Your task to perform on an android device: Turn on the flashlight Image 0: 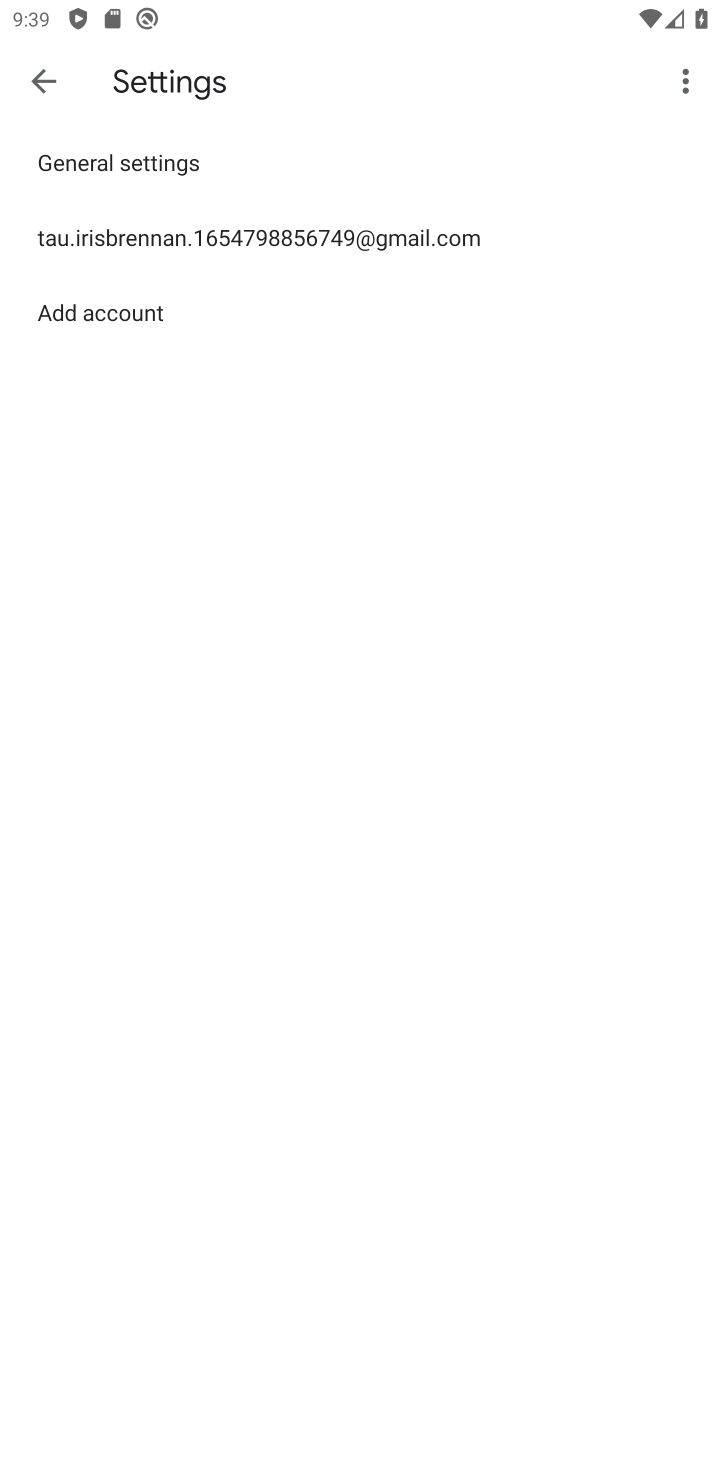
Step 0: press home button
Your task to perform on an android device: Turn on the flashlight Image 1: 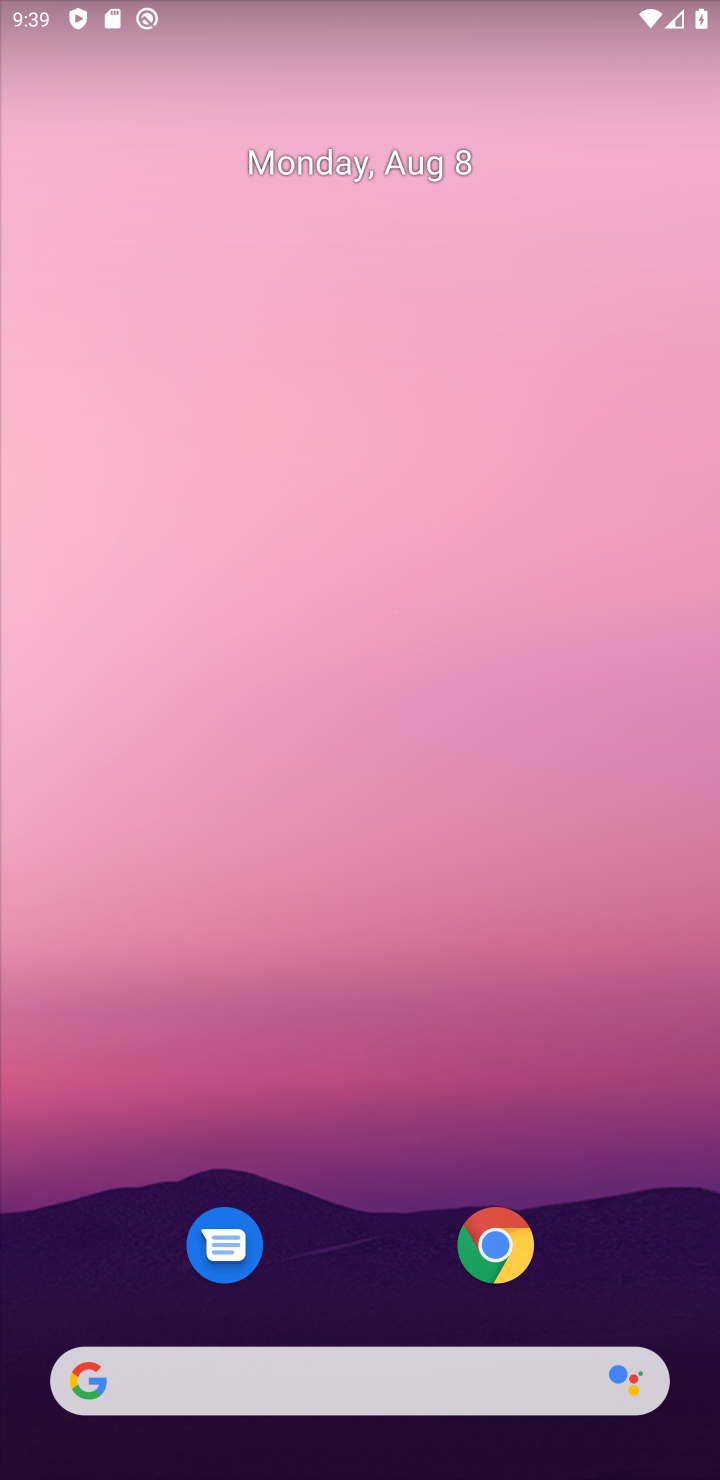
Step 1: drag from (363, 1153) to (363, 448)
Your task to perform on an android device: Turn on the flashlight Image 2: 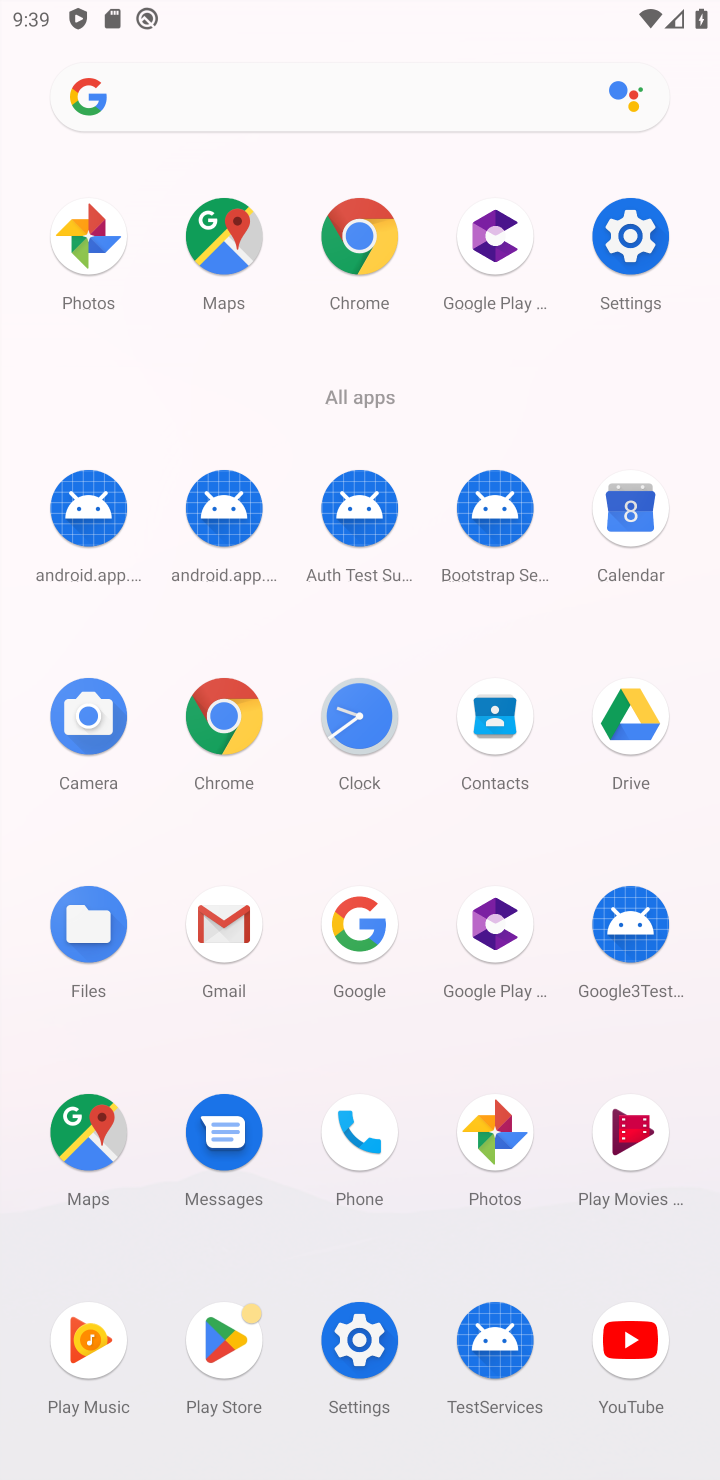
Step 2: click (634, 239)
Your task to perform on an android device: Turn on the flashlight Image 3: 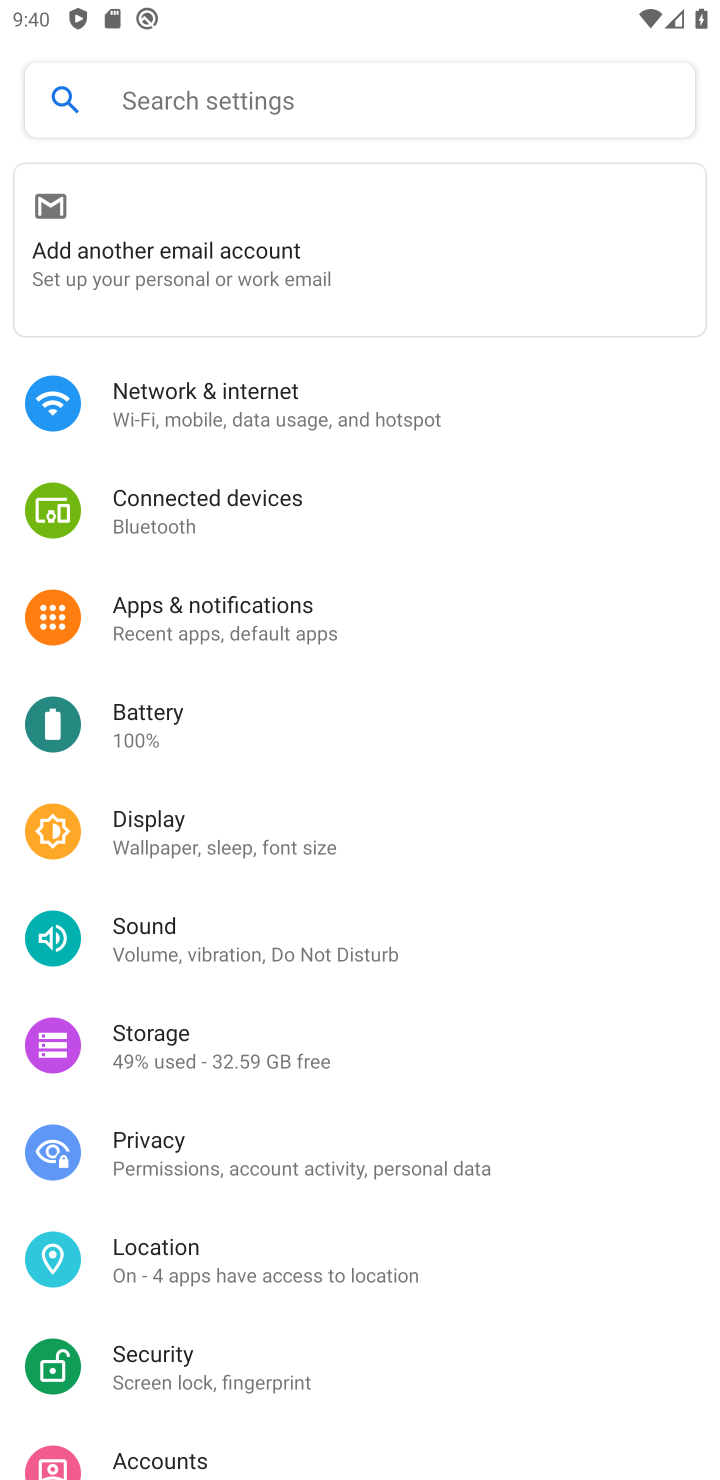
Step 3: click (143, 829)
Your task to perform on an android device: Turn on the flashlight Image 4: 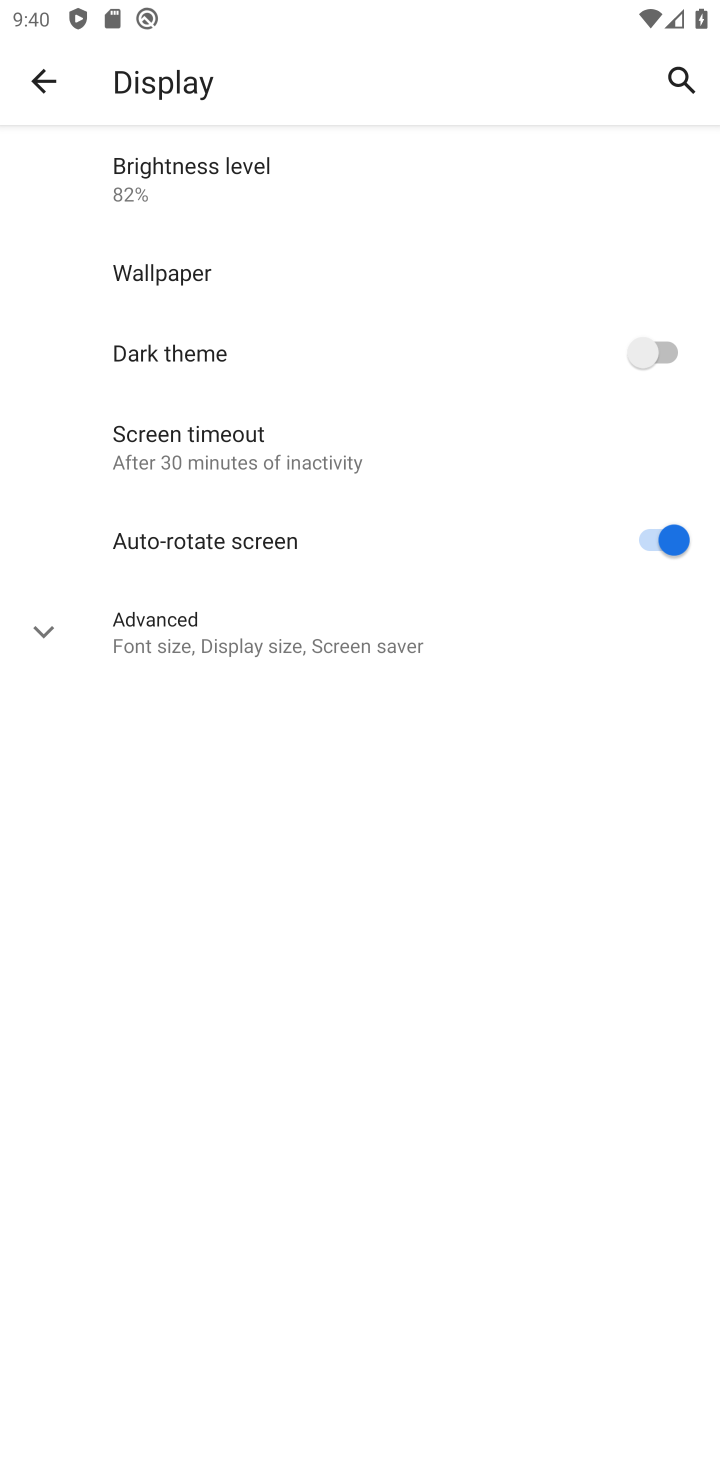
Step 4: task complete